Your task to perform on an android device: Go to battery settings Image 0: 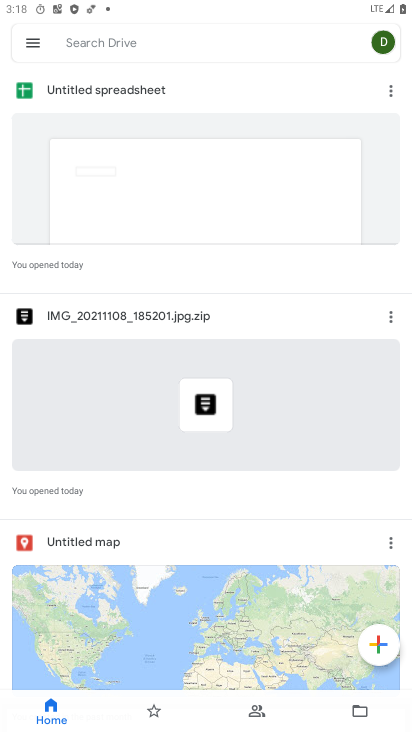
Step 0: press home button
Your task to perform on an android device: Go to battery settings Image 1: 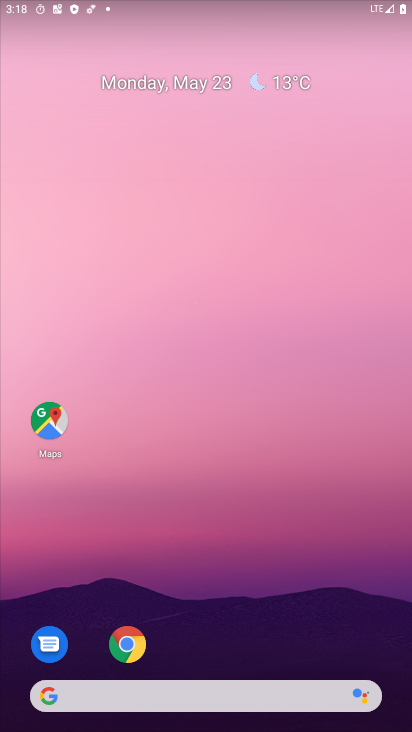
Step 1: drag from (187, 671) to (356, 32)
Your task to perform on an android device: Go to battery settings Image 2: 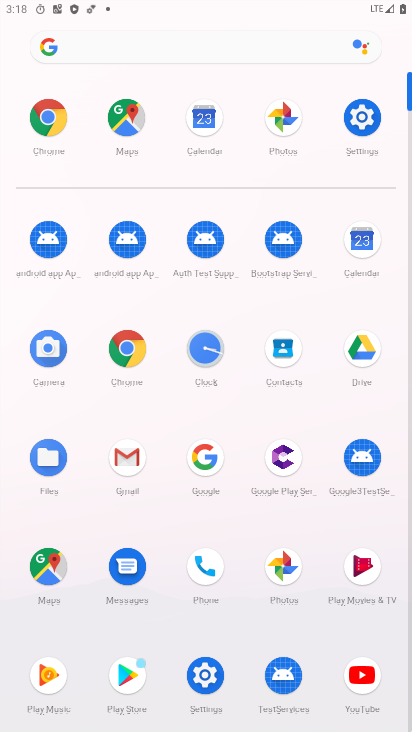
Step 2: click (220, 683)
Your task to perform on an android device: Go to battery settings Image 3: 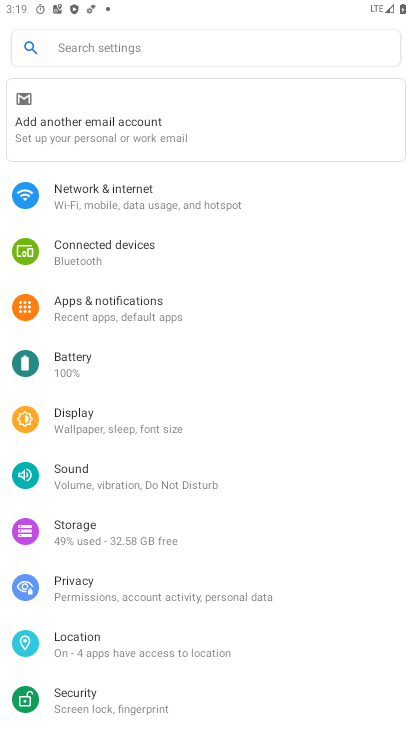
Step 3: click (69, 367)
Your task to perform on an android device: Go to battery settings Image 4: 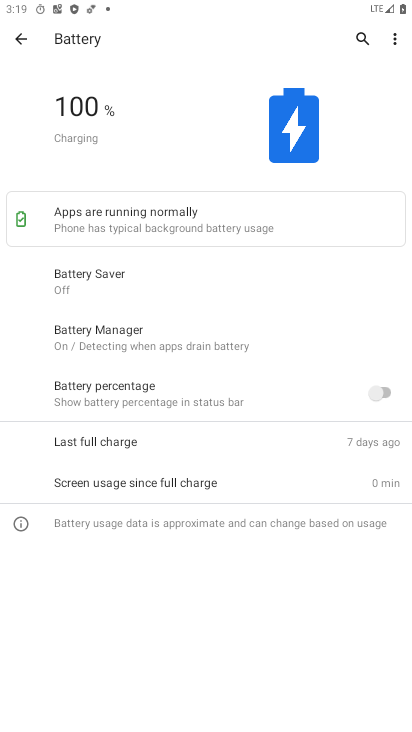
Step 4: task complete